Your task to perform on an android device: Search for apple airpods pro on newegg.com, select the first entry, add it to the cart, then select checkout. Image 0: 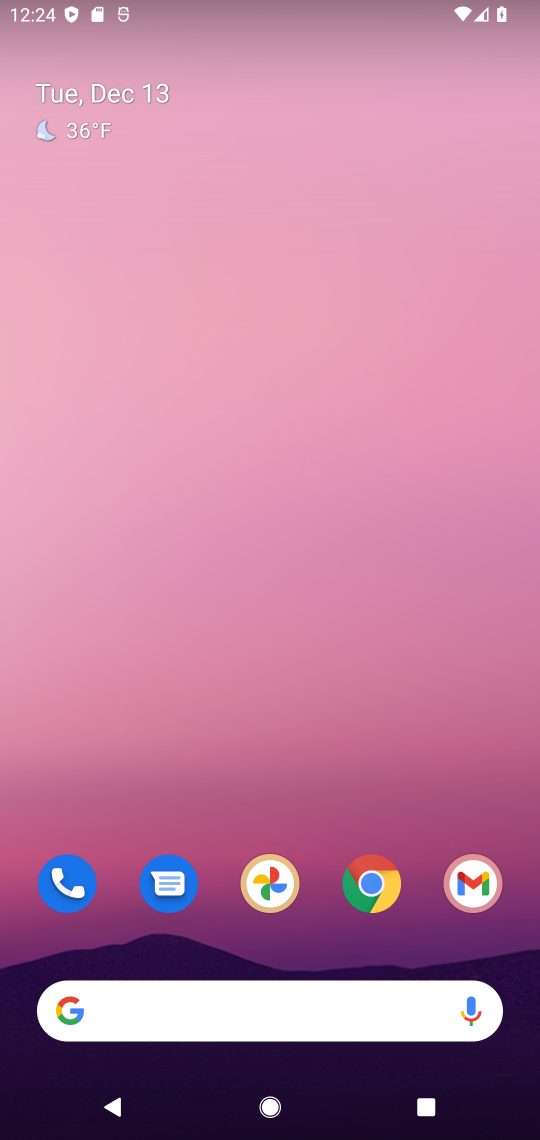
Step 0: press home button
Your task to perform on an android device: Search for apple airpods pro on newegg.com, select the first entry, add it to the cart, then select checkout. Image 1: 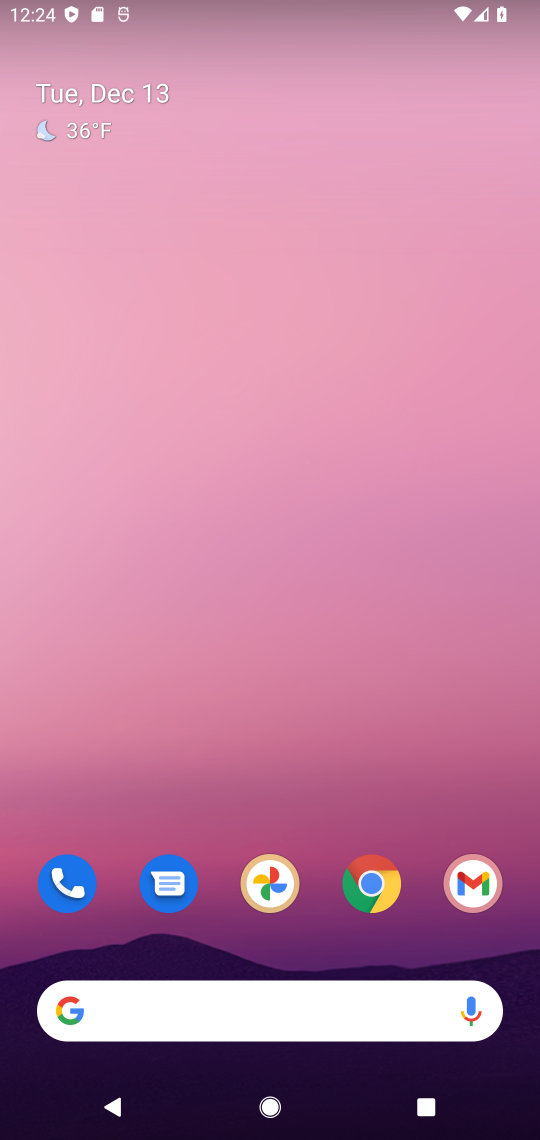
Step 1: drag from (211, 940) to (234, 146)
Your task to perform on an android device: Search for apple airpods pro on newegg.com, select the first entry, add it to the cart, then select checkout. Image 2: 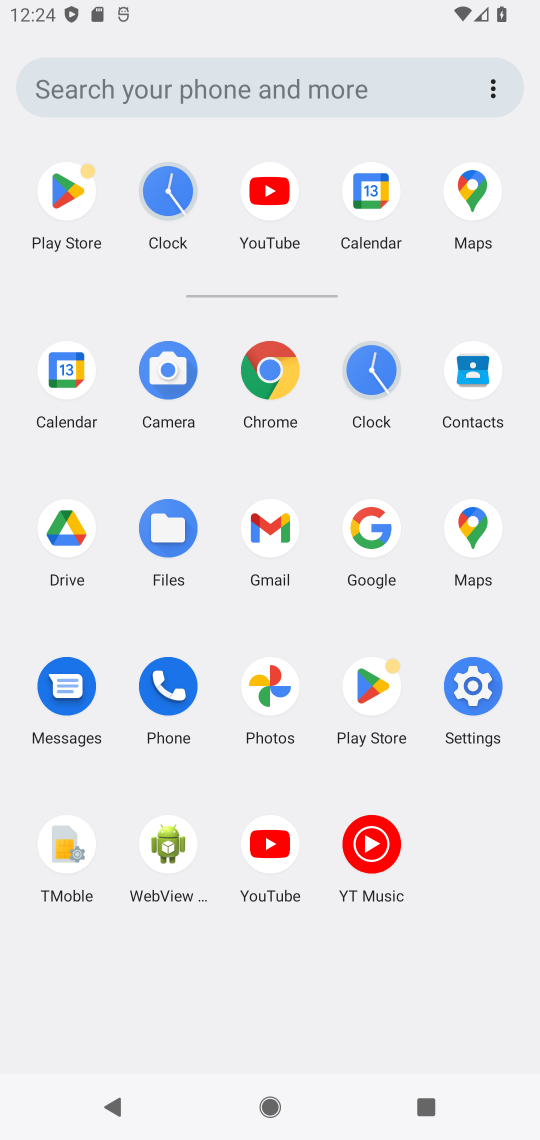
Step 2: click (381, 559)
Your task to perform on an android device: Search for apple airpods pro on newegg.com, select the first entry, add it to the cart, then select checkout. Image 3: 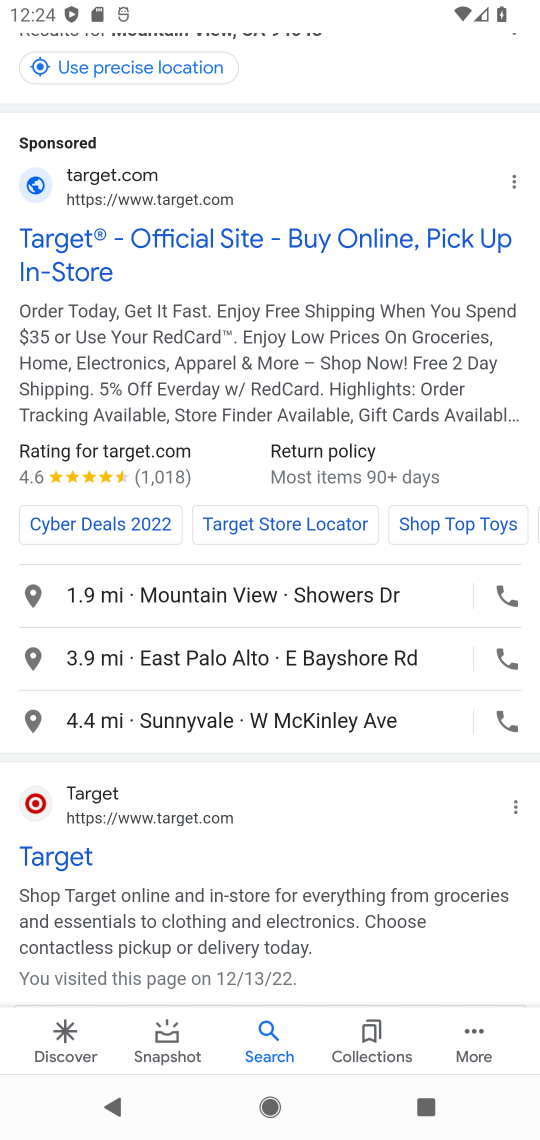
Step 3: drag from (156, 476) to (156, 808)
Your task to perform on an android device: Search for apple airpods pro on newegg.com, select the first entry, add it to the cart, then select checkout. Image 4: 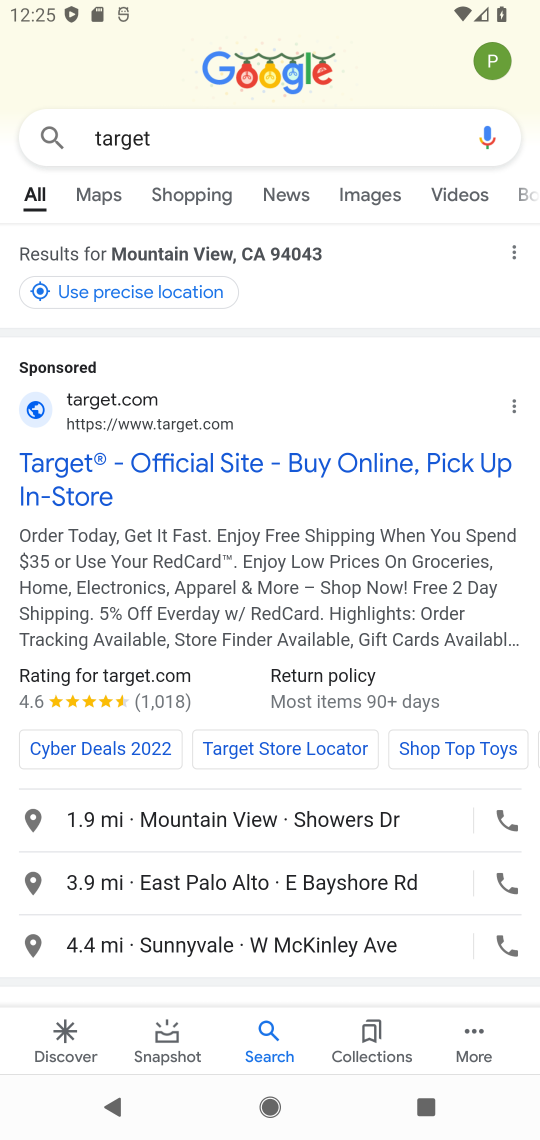
Step 4: click (208, 138)
Your task to perform on an android device: Search for apple airpods pro on newegg.com, select the first entry, add it to the cart, then select checkout. Image 5: 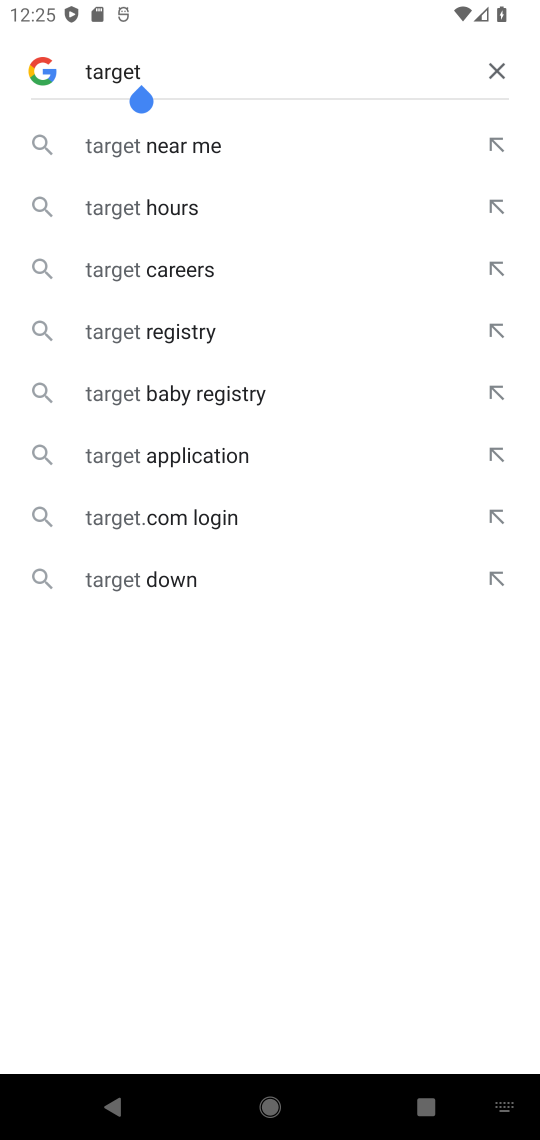
Step 5: click (489, 62)
Your task to perform on an android device: Search for apple airpods pro on newegg.com, select the first entry, add it to the cart, then select checkout. Image 6: 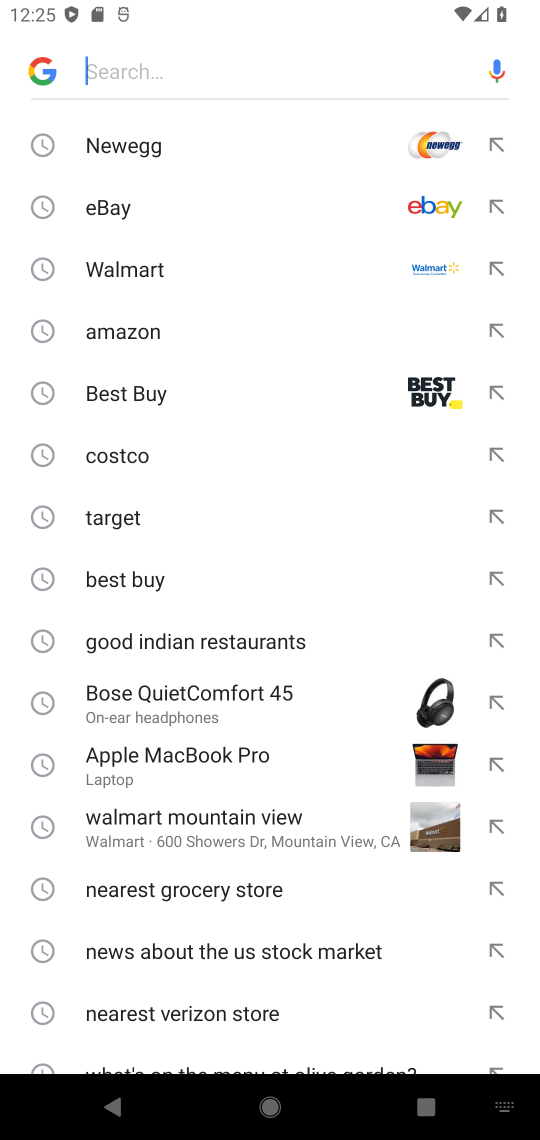
Step 6: type "newegg.com,"
Your task to perform on an android device: Search for apple airpods pro on newegg.com, select the first entry, add it to the cart, then select checkout. Image 7: 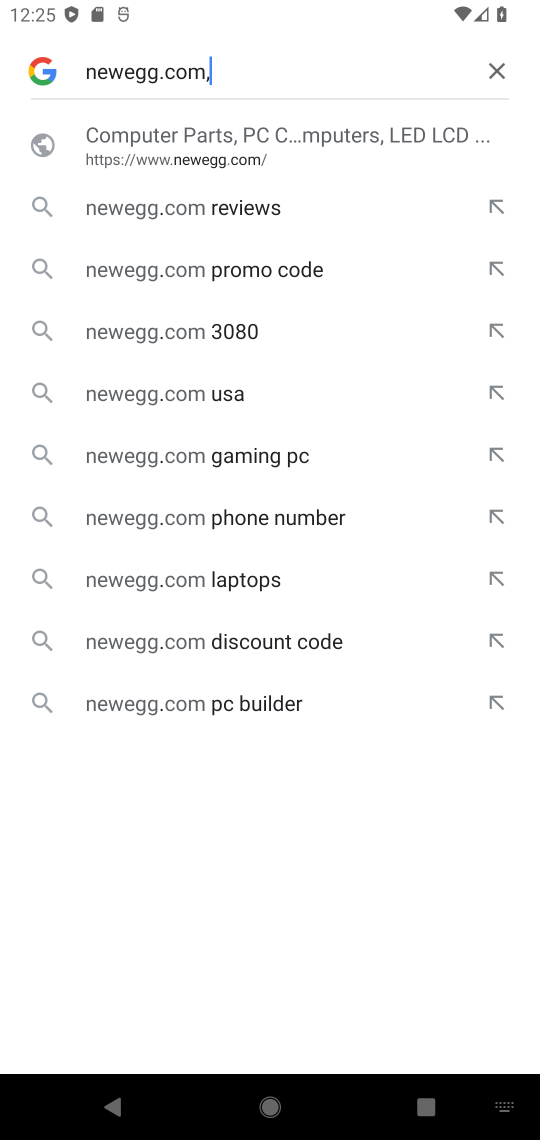
Step 7: click (213, 157)
Your task to perform on an android device: Search for apple airpods pro on newegg.com, select the first entry, add it to the cart, then select checkout. Image 8: 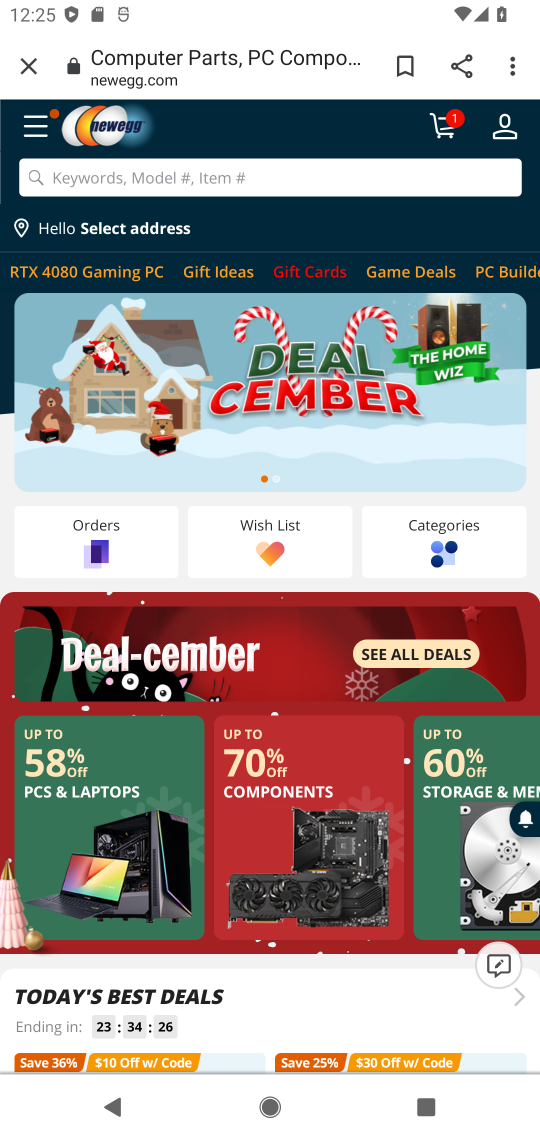
Step 8: click (230, 185)
Your task to perform on an android device: Search for apple airpods pro on newegg.com, select the first entry, add it to the cart, then select checkout. Image 9: 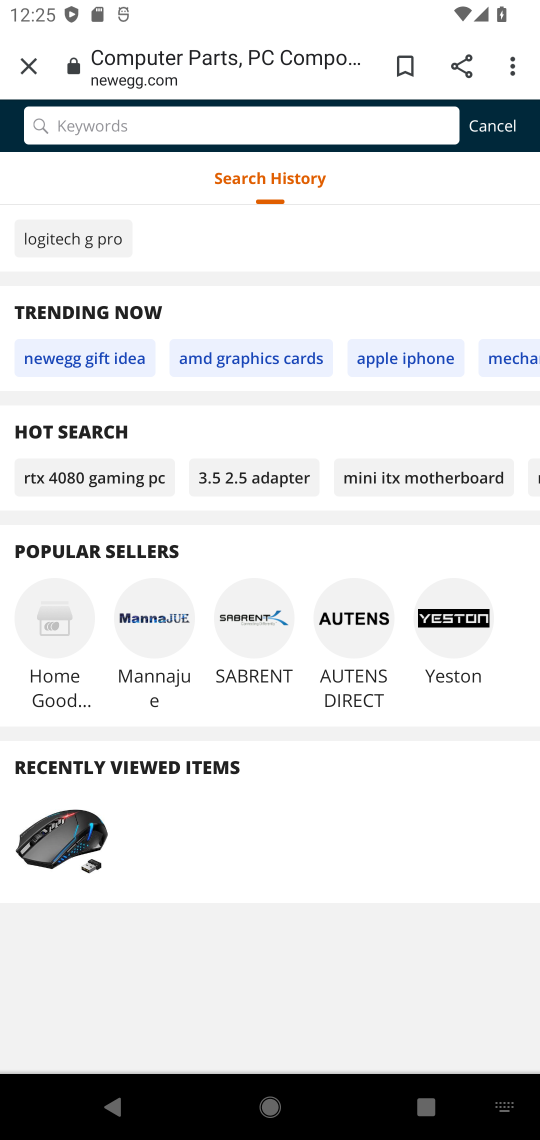
Step 9: type " apple airpods pro"
Your task to perform on an android device: Search for apple airpods pro on newegg.com, select the first entry, add it to the cart, then select checkout. Image 10: 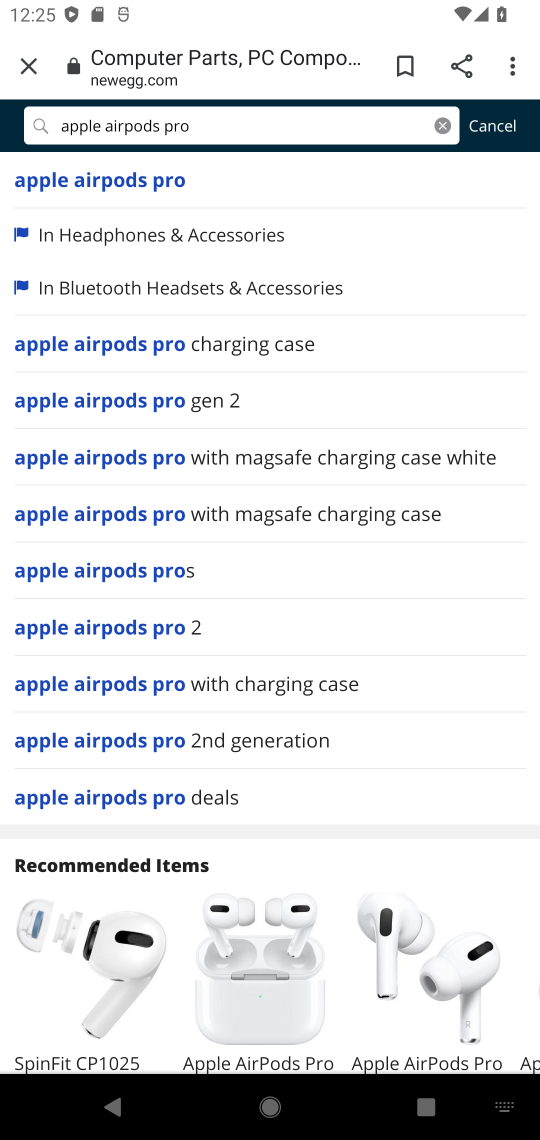
Step 10: click (59, 174)
Your task to perform on an android device: Search for apple airpods pro on newegg.com, select the first entry, add it to the cart, then select checkout. Image 11: 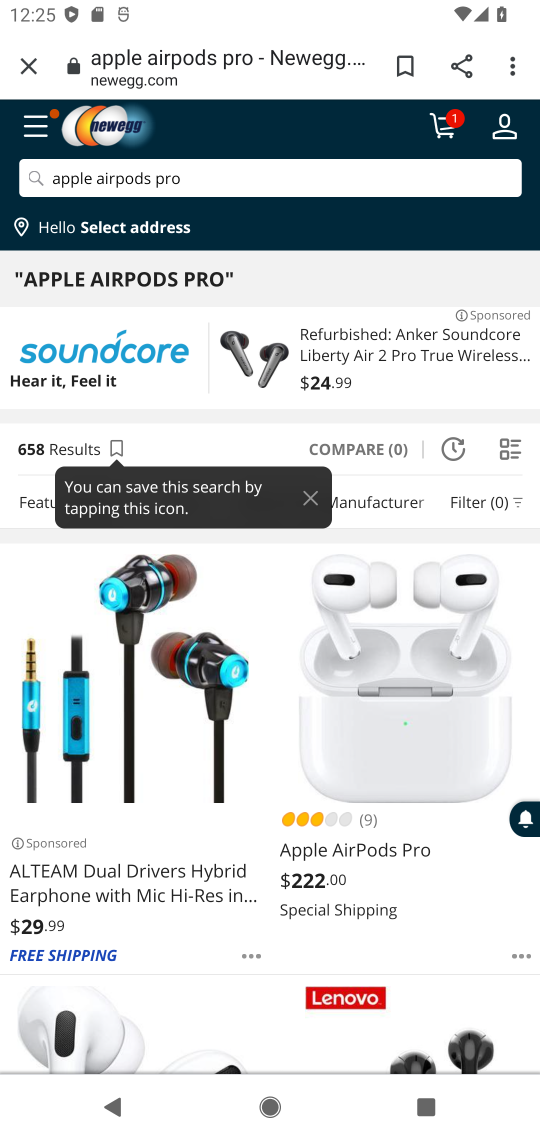
Step 11: click (123, 852)
Your task to perform on an android device: Search for apple airpods pro on newegg.com, select the first entry, add it to the cart, then select checkout. Image 12: 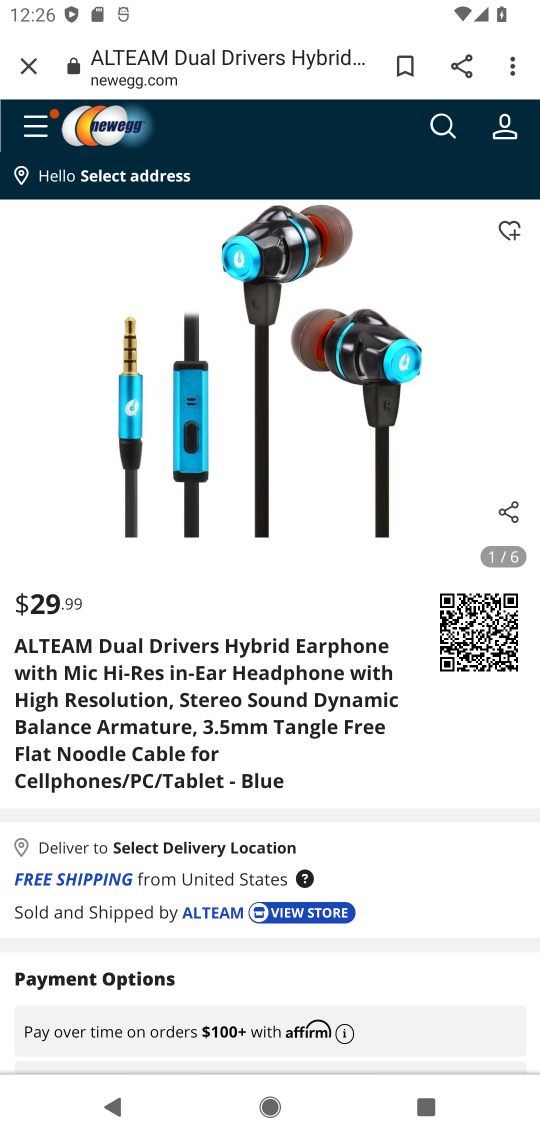
Step 12: click (248, 1043)
Your task to perform on an android device: Search for apple airpods pro on newegg.com, select the first entry, add it to the cart, then select checkout. Image 13: 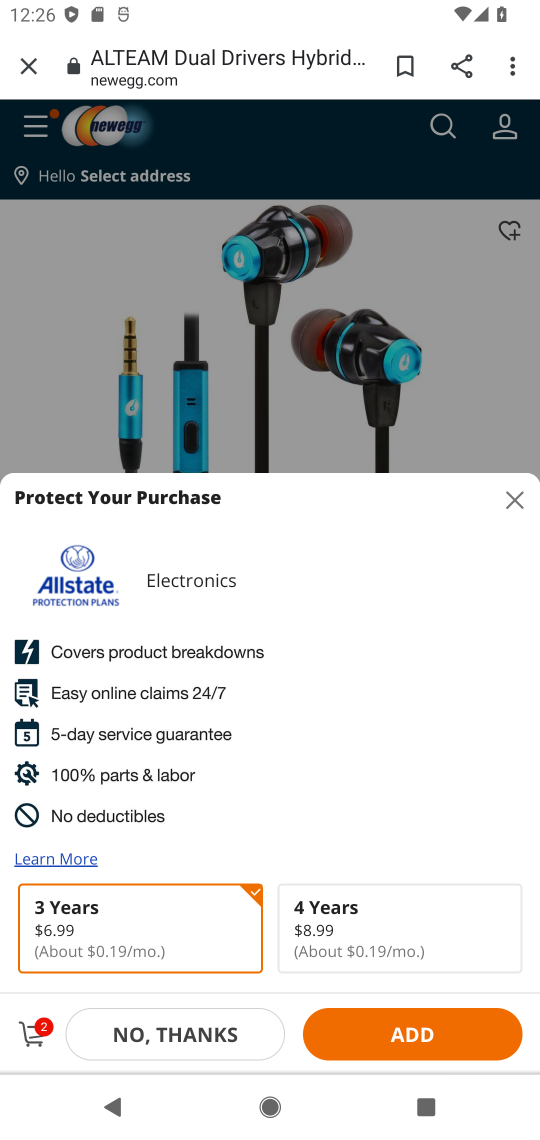
Step 13: click (224, 1028)
Your task to perform on an android device: Search for apple airpods pro on newegg.com, select the first entry, add it to the cart, then select checkout. Image 14: 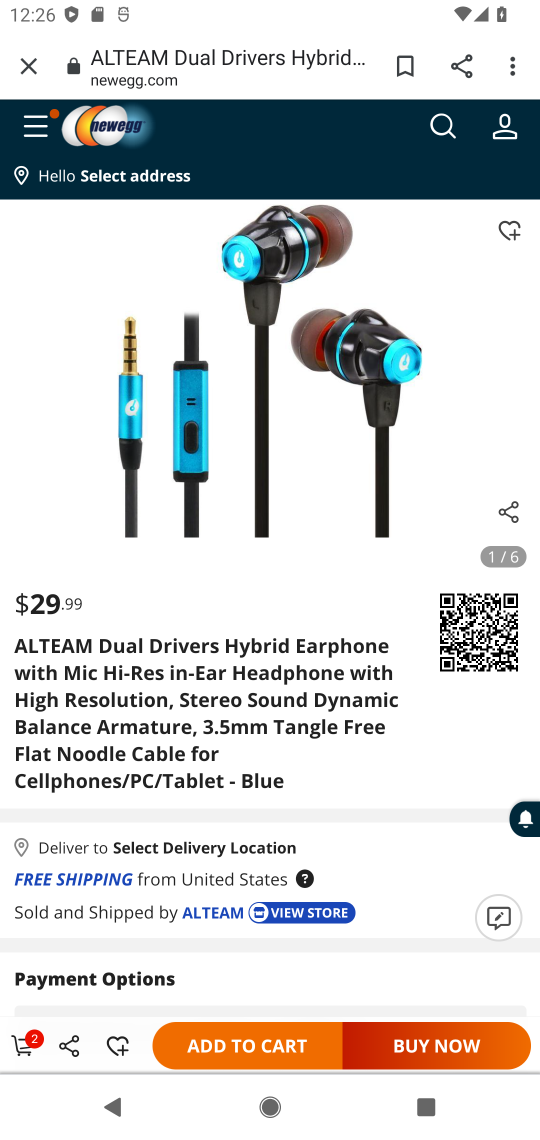
Step 14: drag from (401, 564) to (394, 719)
Your task to perform on an android device: Search for apple airpods pro on newegg.com, select the first entry, add it to the cart, then select checkout. Image 15: 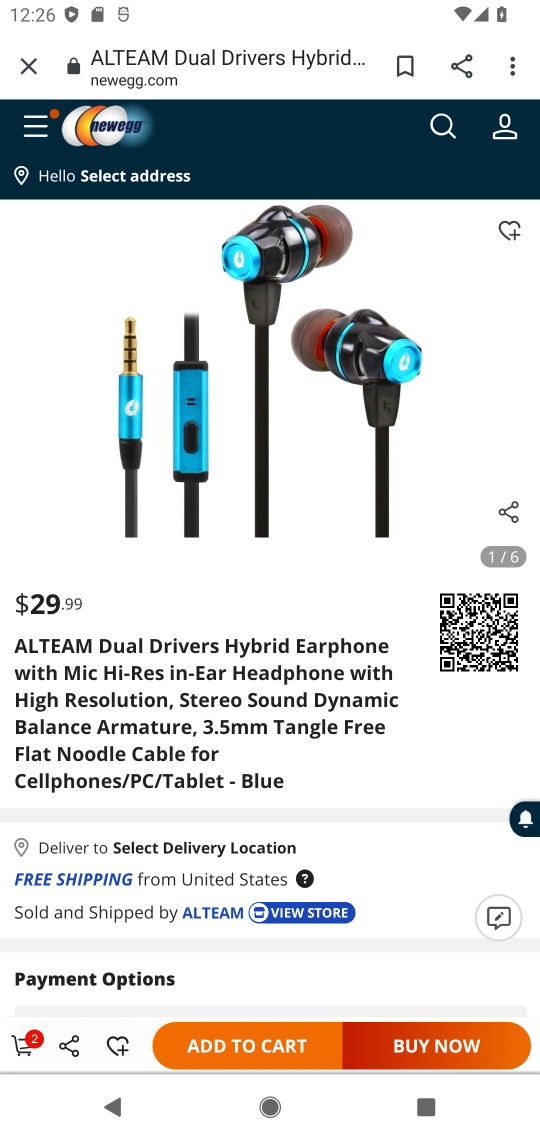
Step 15: click (33, 1043)
Your task to perform on an android device: Search for apple airpods pro on newegg.com, select the first entry, add it to the cart, then select checkout. Image 16: 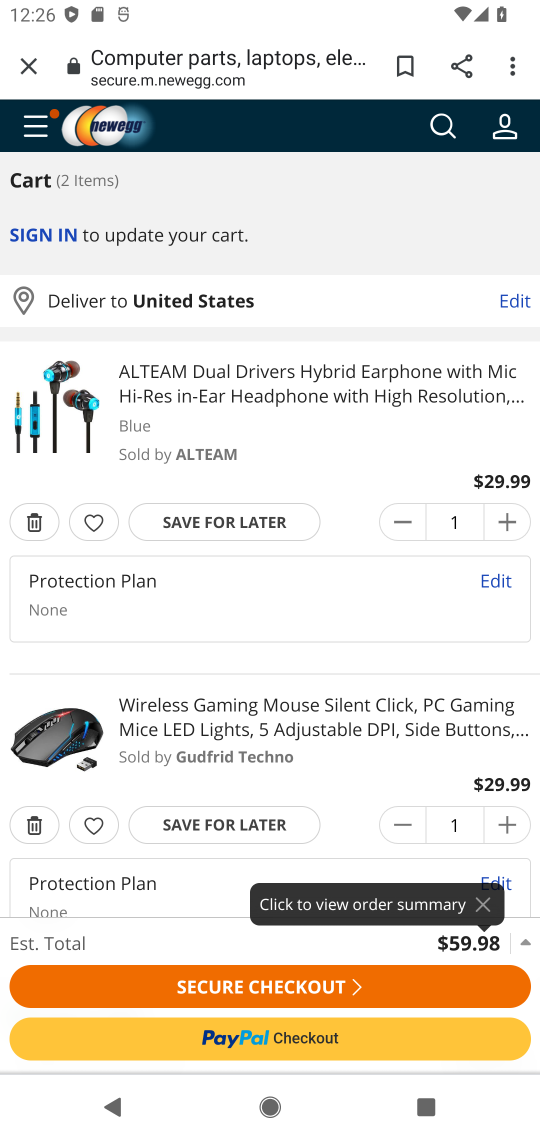
Step 16: click (274, 983)
Your task to perform on an android device: Search for apple airpods pro on newegg.com, select the first entry, add it to the cart, then select checkout. Image 17: 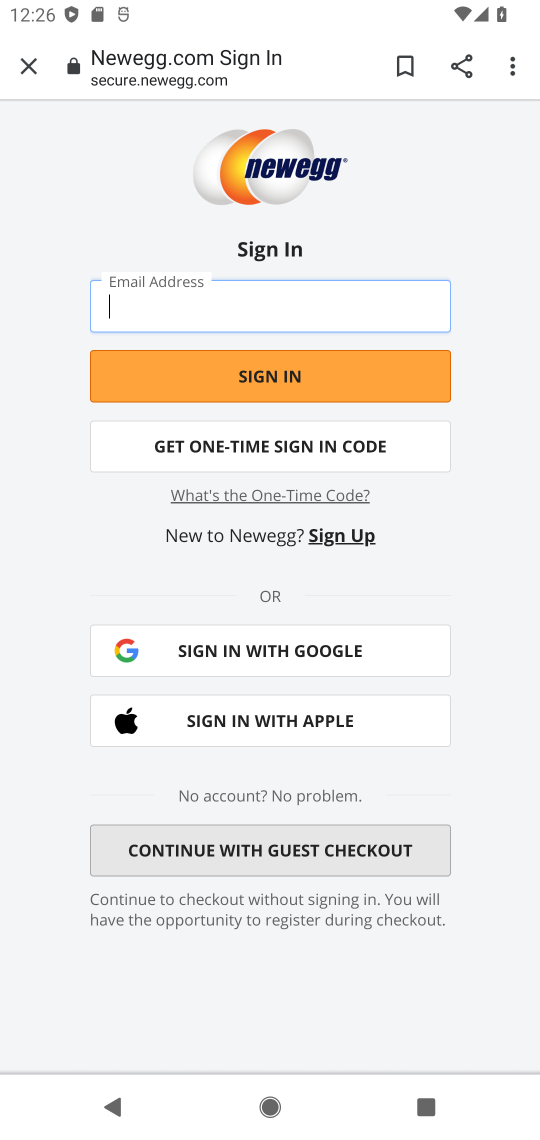
Step 17: task complete